Your task to perform on an android device: find snoozed emails in the gmail app Image 0: 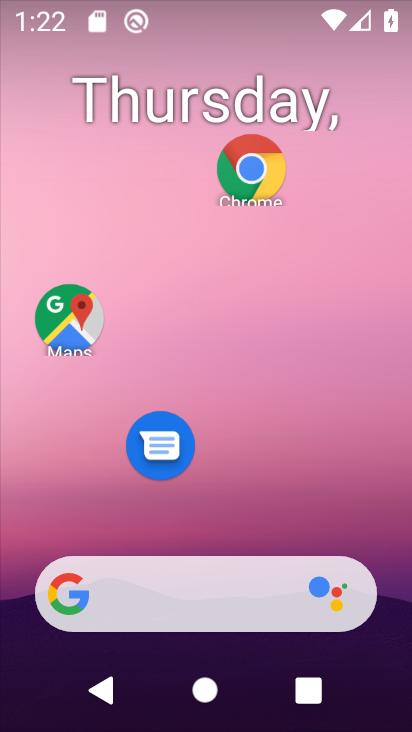
Step 0: drag from (313, 640) to (336, 193)
Your task to perform on an android device: find snoozed emails in the gmail app Image 1: 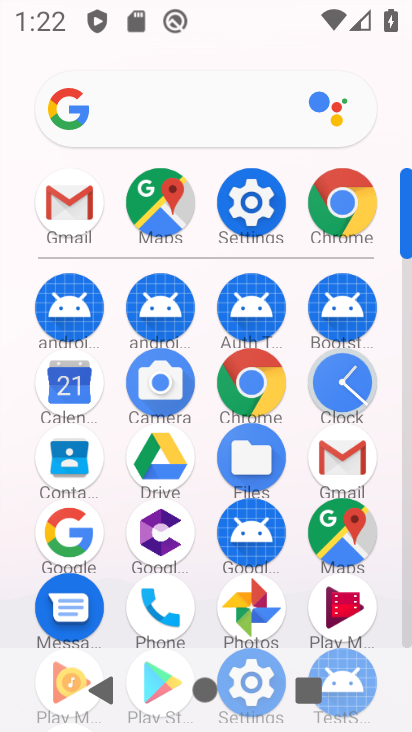
Step 1: click (75, 206)
Your task to perform on an android device: find snoozed emails in the gmail app Image 2: 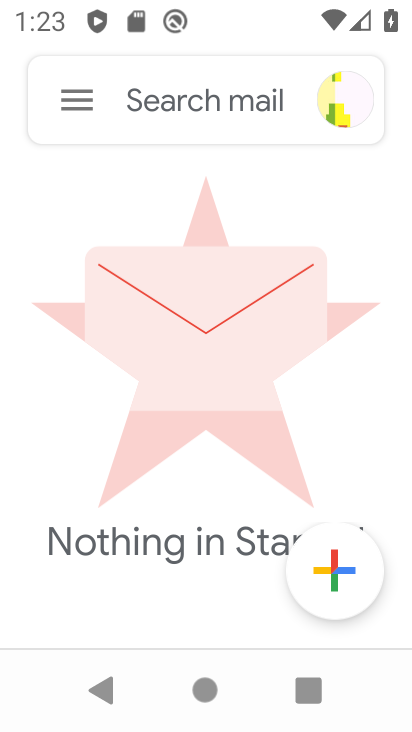
Step 2: click (83, 91)
Your task to perform on an android device: find snoozed emails in the gmail app Image 3: 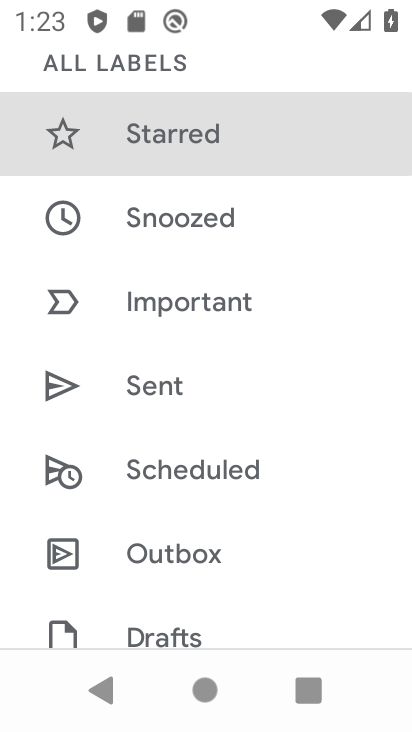
Step 3: click (155, 216)
Your task to perform on an android device: find snoozed emails in the gmail app Image 4: 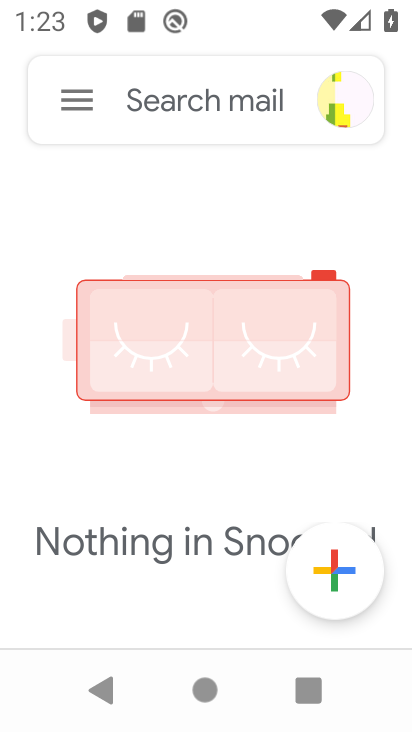
Step 4: task complete